Your task to perform on an android device: Add asus rog to the cart on costco, then select checkout. Image 0: 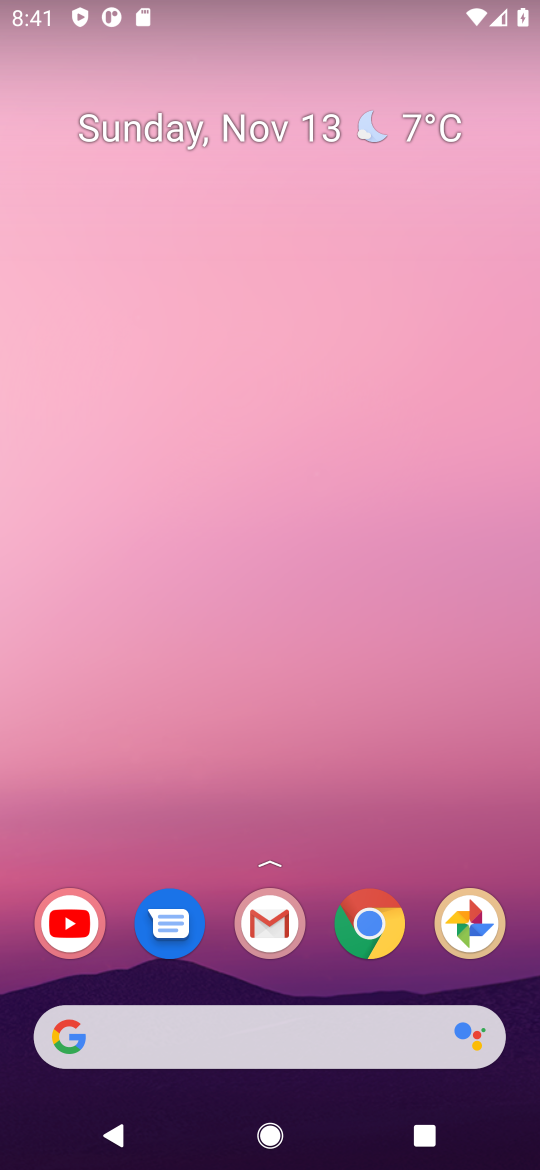
Step 0: click (368, 926)
Your task to perform on an android device: Add asus rog to the cart on costco, then select checkout. Image 1: 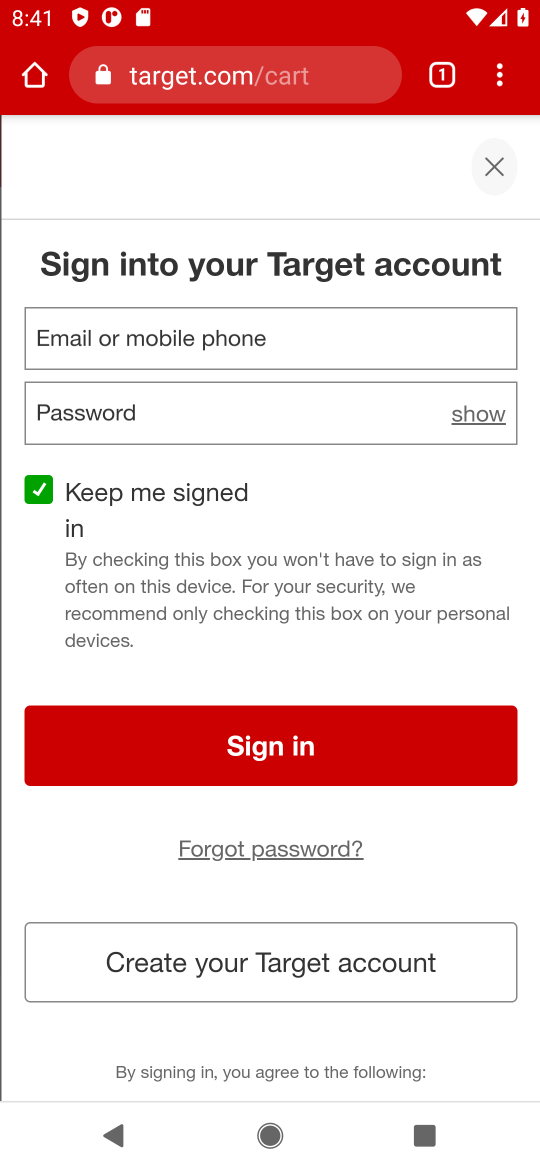
Step 1: click (221, 77)
Your task to perform on an android device: Add asus rog to the cart on costco, then select checkout. Image 2: 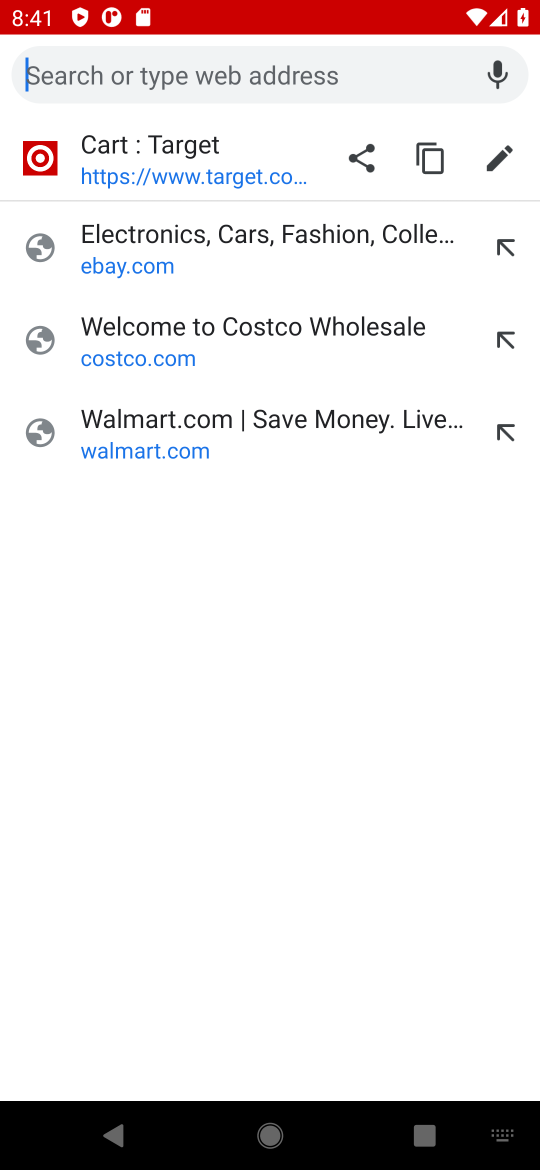
Step 2: type "costco"
Your task to perform on an android device: Add asus rog to the cart on costco, then select checkout. Image 3: 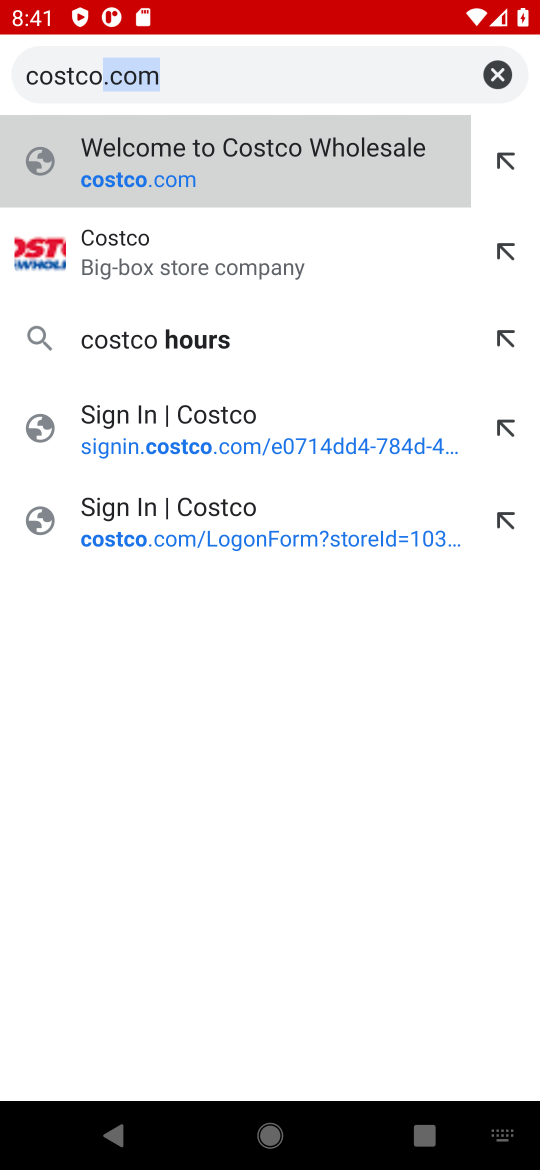
Step 3: click (324, 181)
Your task to perform on an android device: Add asus rog to the cart on costco, then select checkout. Image 4: 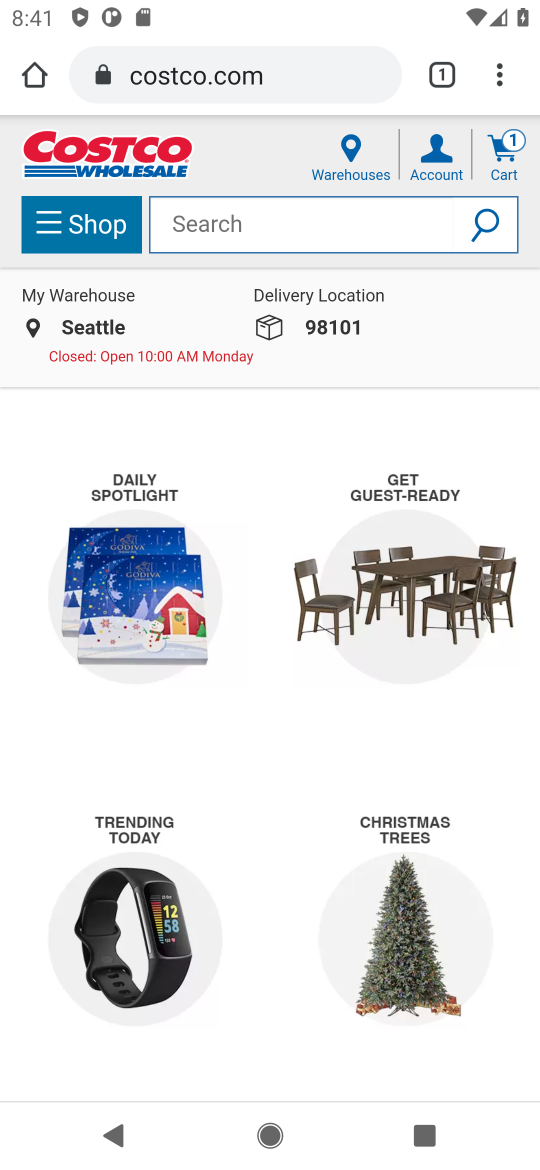
Step 4: click (294, 214)
Your task to perform on an android device: Add asus rog to the cart on costco, then select checkout. Image 5: 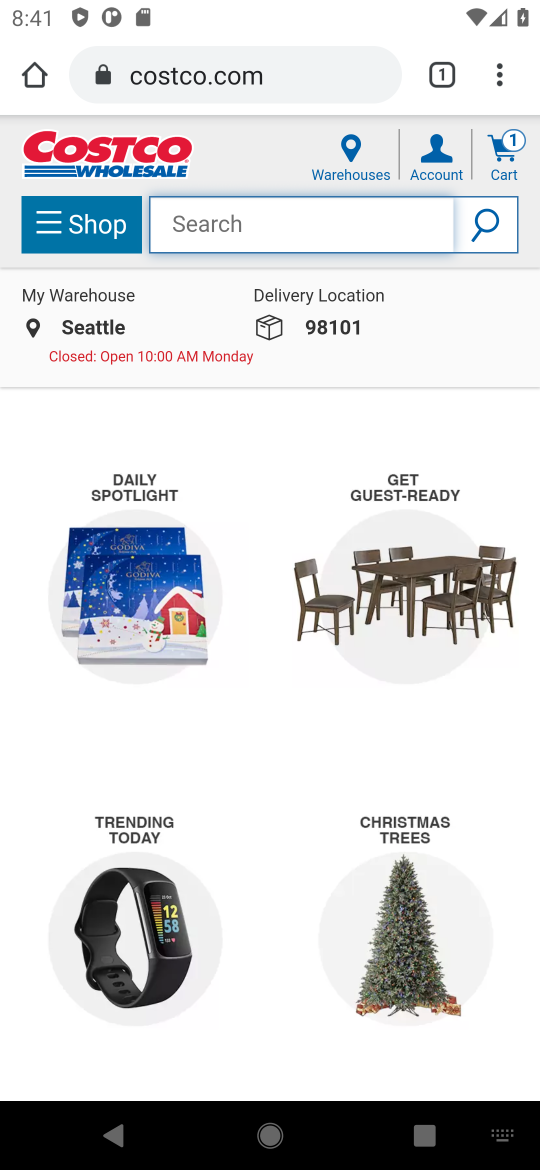
Step 5: type "asus rog"
Your task to perform on an android device: Add asus rog to the cart on costco, then select checkout. Image 6: 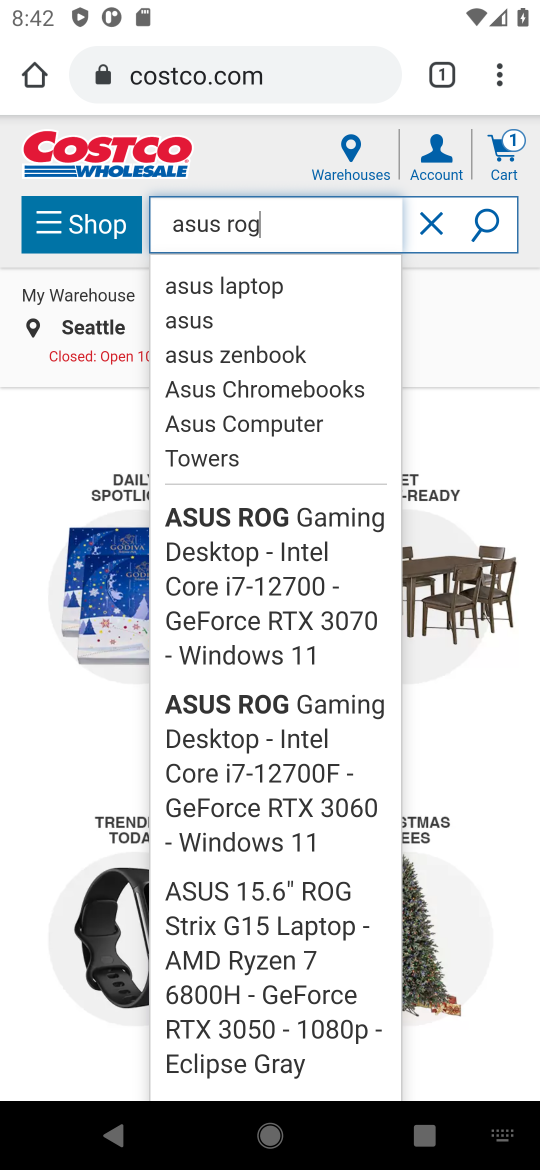
Step 6: press enter
Your task to perform on an android device: Add asus rog to the cart on costco, then select checkout. Image 7: 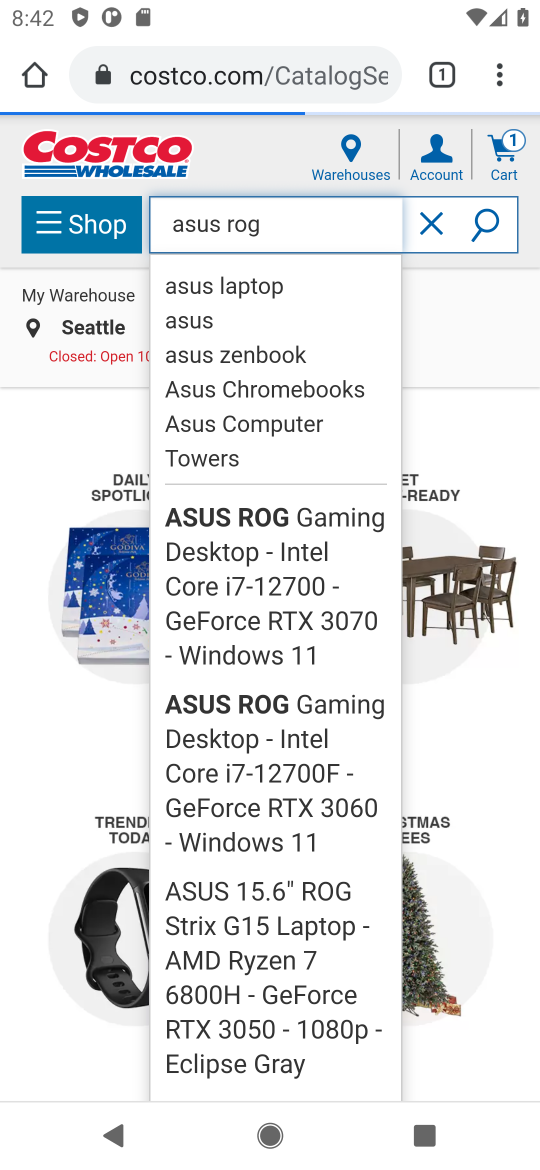
Step 7: press enter
Your task to perform on an android device: Add asus rog to the cart on costco, then select checkout. Image 8: 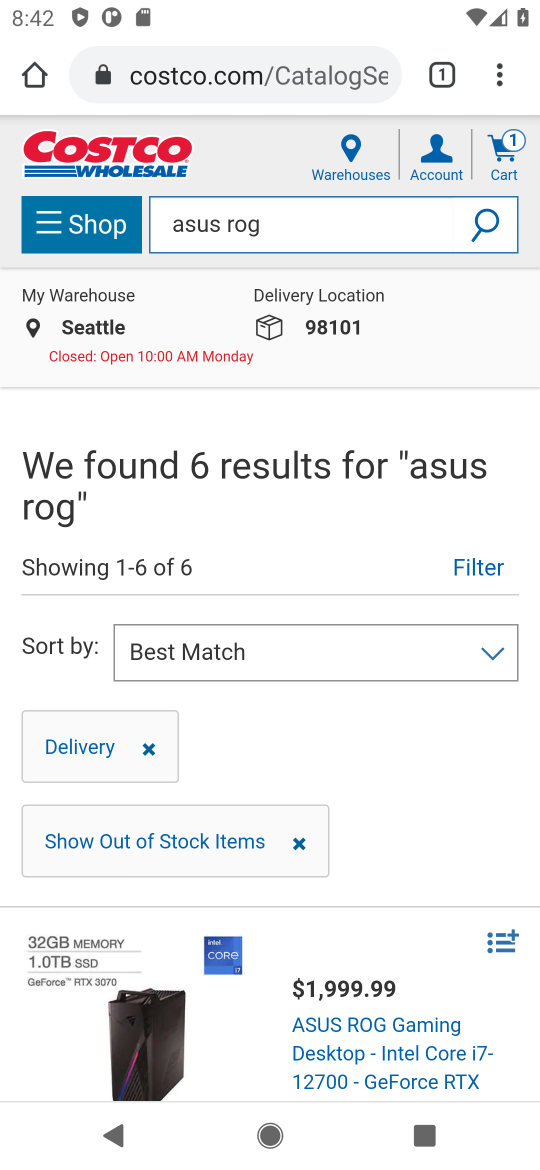
Step 8: click (327, 1067)
Your task to perform on an android device: Add asus rog to the cart on costco, then select checkout. Image 9: 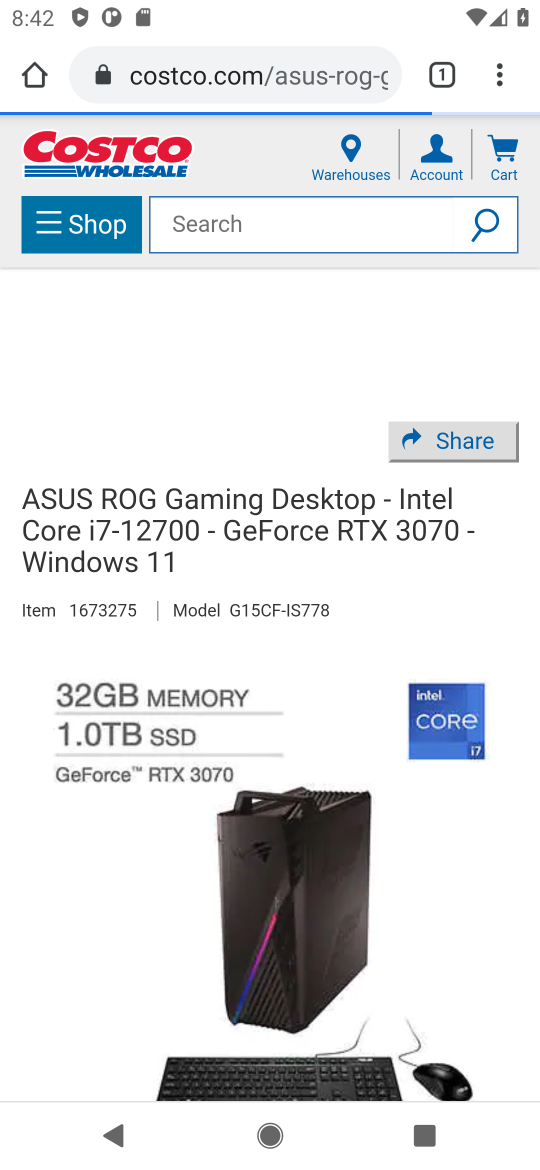
Step 9: drag from (367, 791) to (337, 336)
Your task to perform on an android device: Add asus rog to the cart on costco, then select checkout. Image 10: 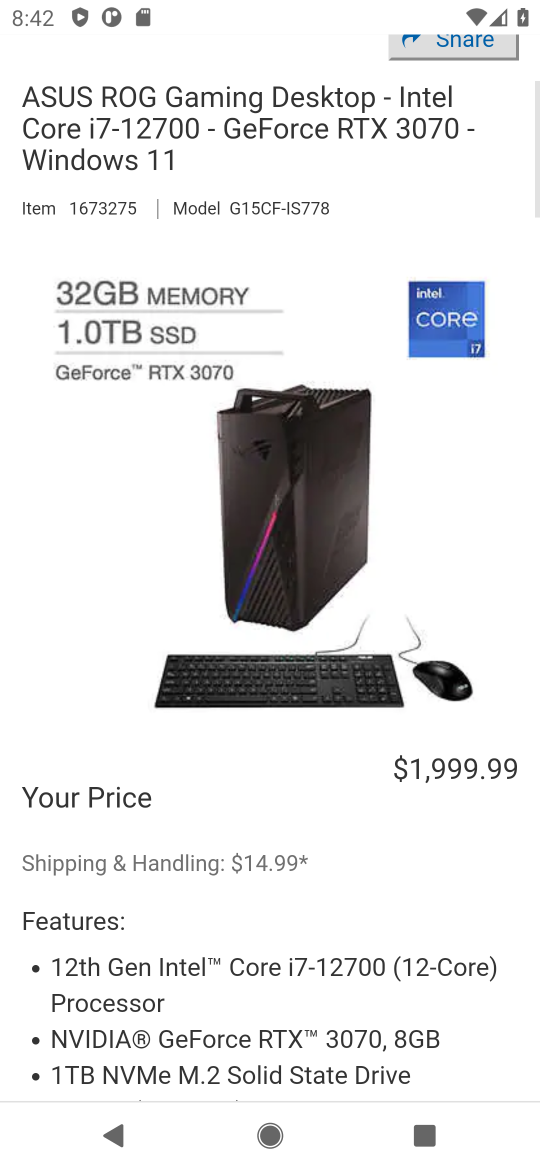
Step 10: drag from (402, 622) to (392, 434)
Your task to perform on an android device: Add asus rog to the cart on costco, then select checkout. Image 11: 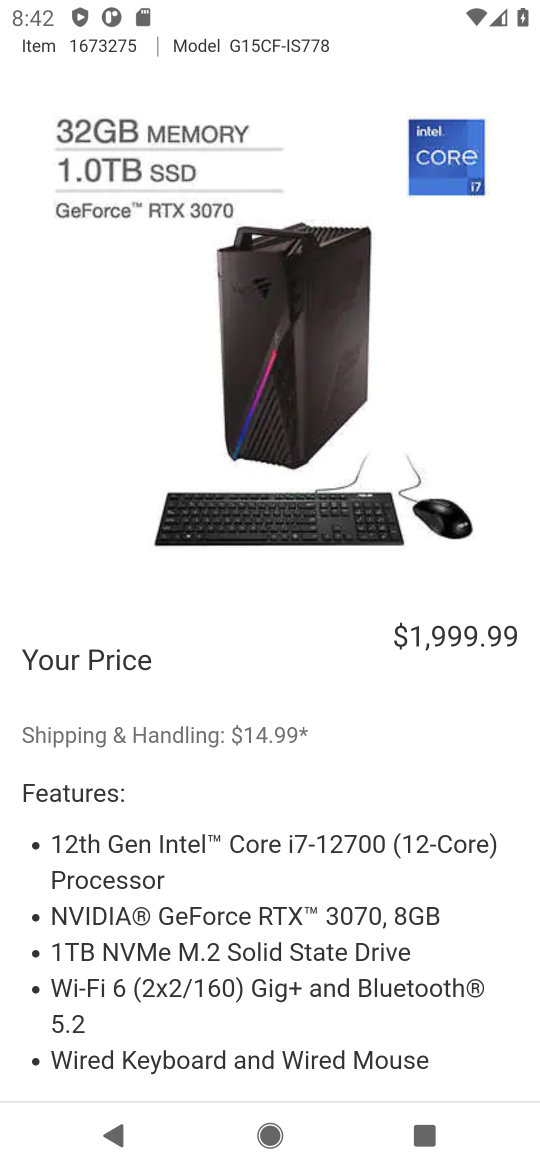
Step 11: drag from (391, 868) to (379, 607)
Your task to perform on an android device: Add asus rog to the cart on costco, then select checkout. Image 12: 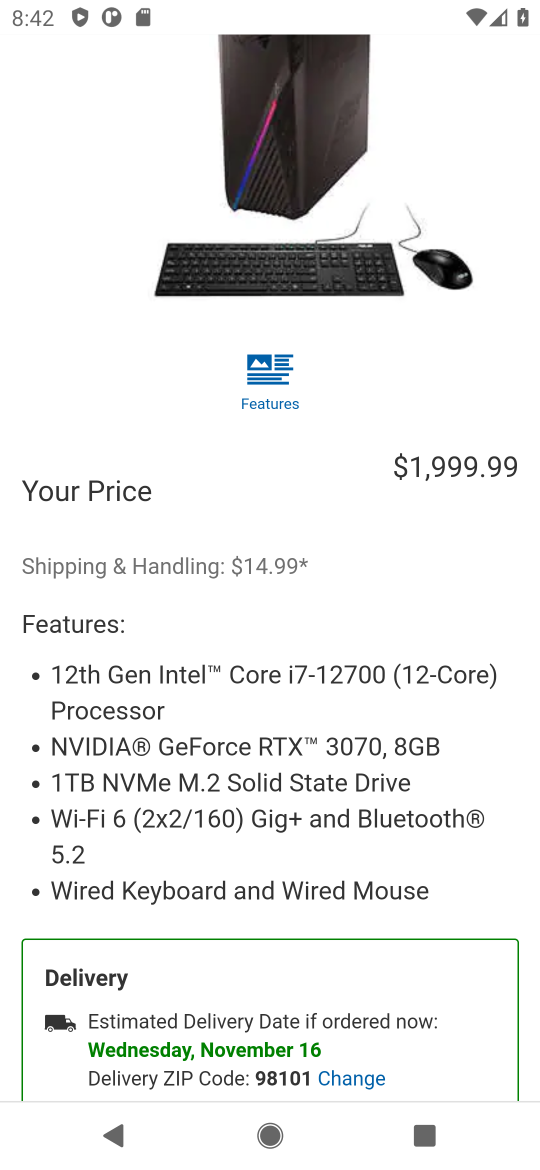
Step 12: drag from (364, 606) to (375, 546)
Your task to perform on an android device: Add asus rog to the cart on costco, then select checkout. Image 13: 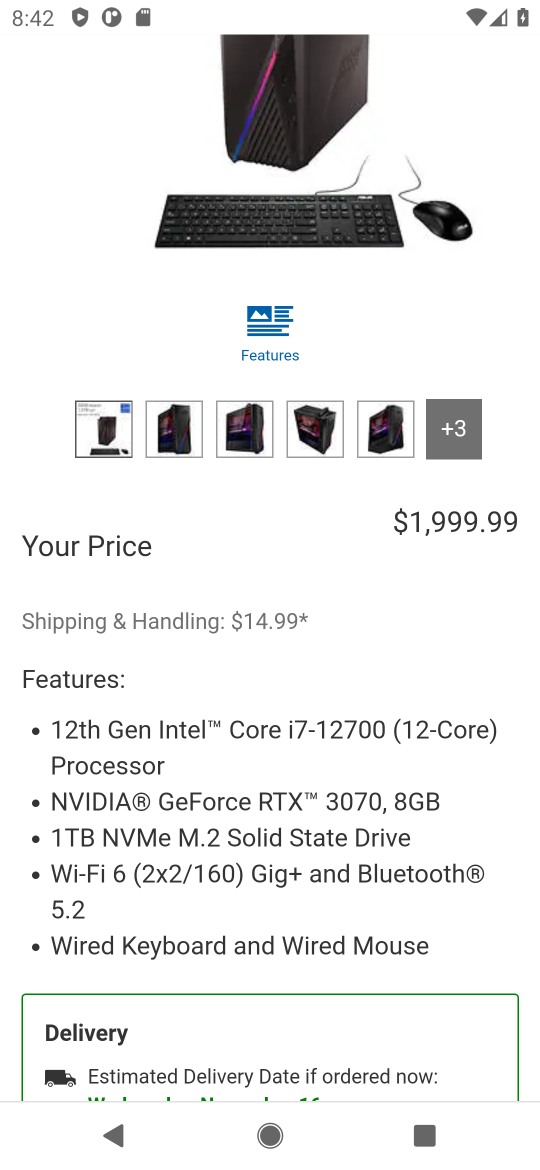
Step 13: drag from (244, 693) to (227, 132)
Your task to perform on an android device: Add asus rog to the cart on costco, then select checkout. Image 14: 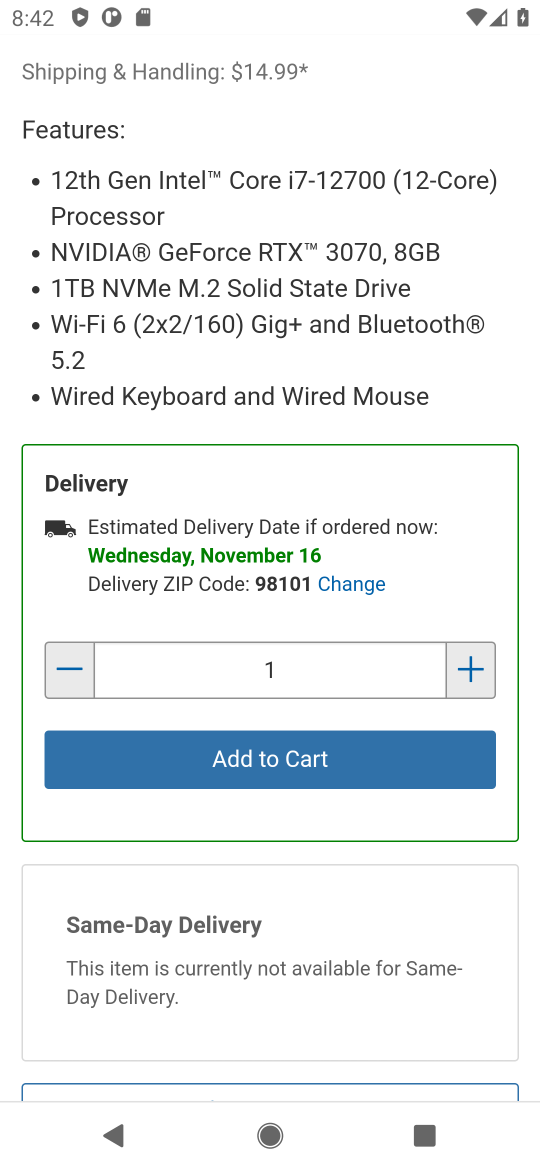
Step 14: click (221, 762)
Your task to perform on an android device: Add asus rog to the cart on costco, then select checkout. Image 15: 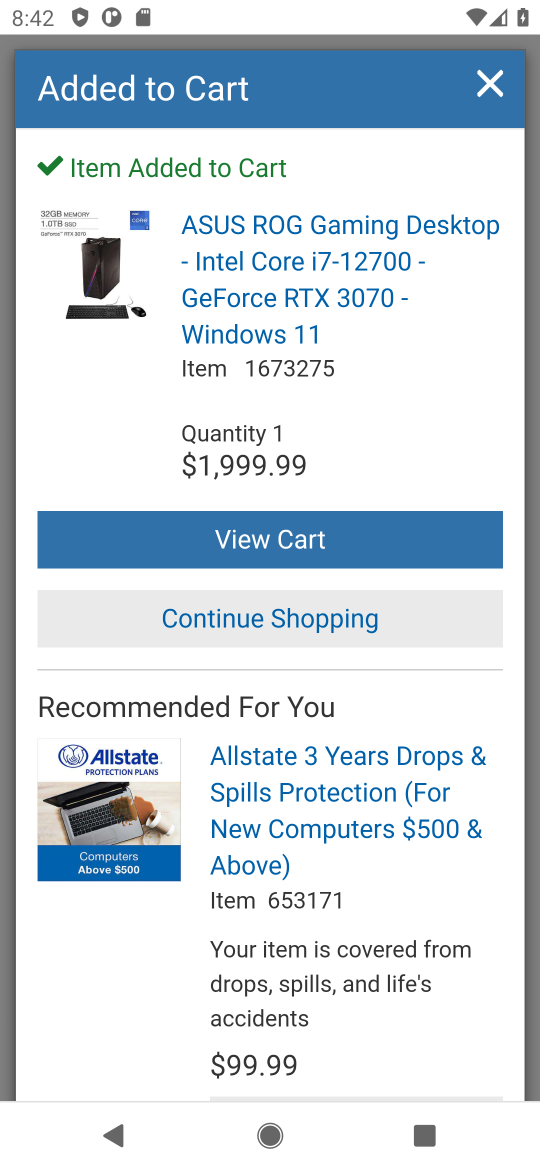
Step 15: click (266, 554)
Your task to perform on an android device: Add asus rog to the cart on costco, then select checkout. Image 16: 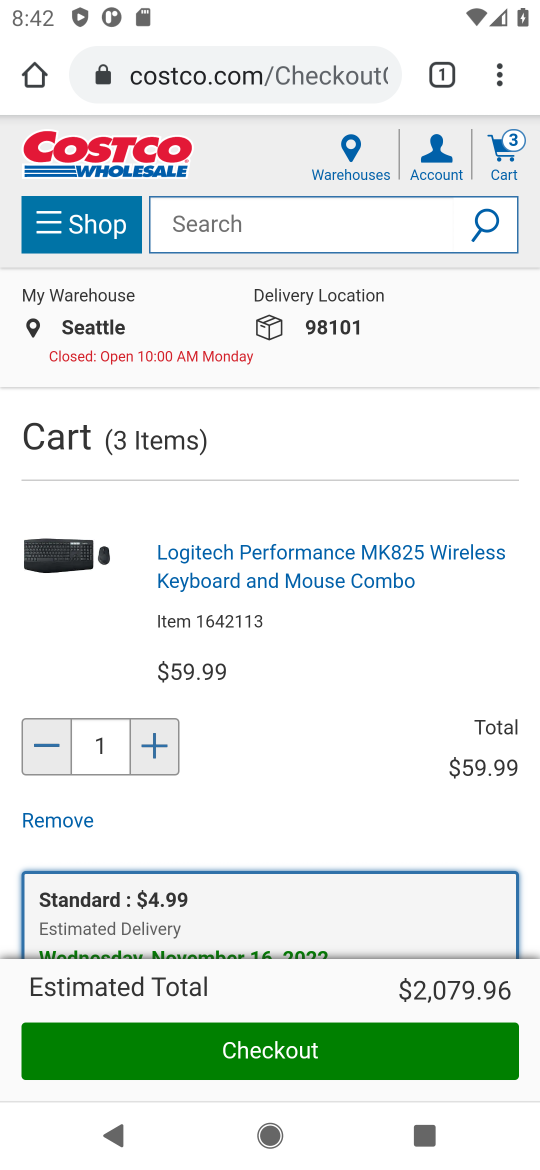
Step 16: click (302, 1057)
Your task to perform on an android device: Add asus rog to the cart on costco, then select checkout. Image 17: 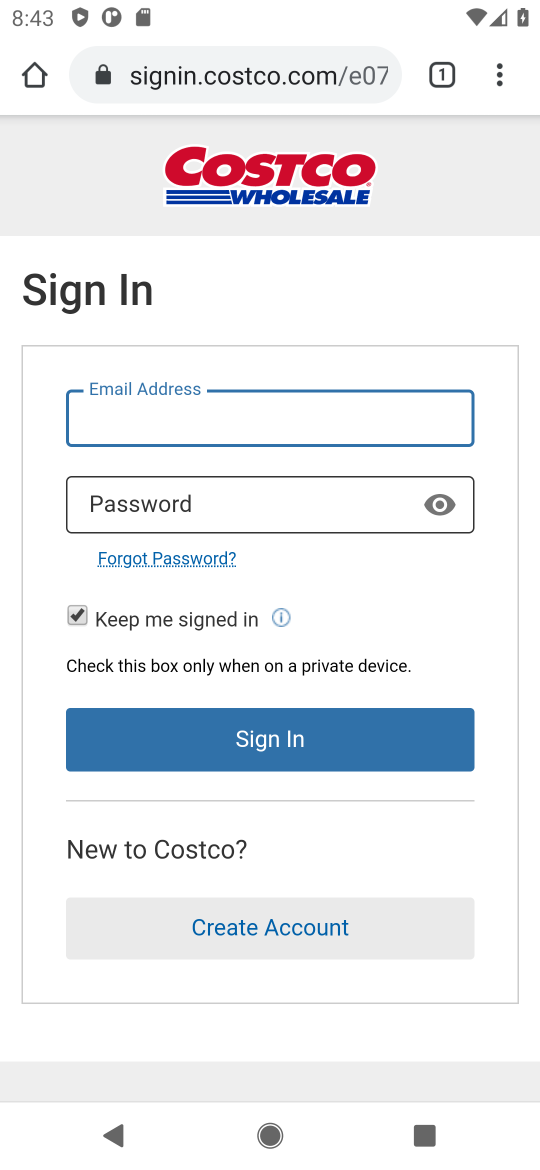
Step 17: task complete